Your task to perform on an android device: turn pop-ups off in chrome Image 0: 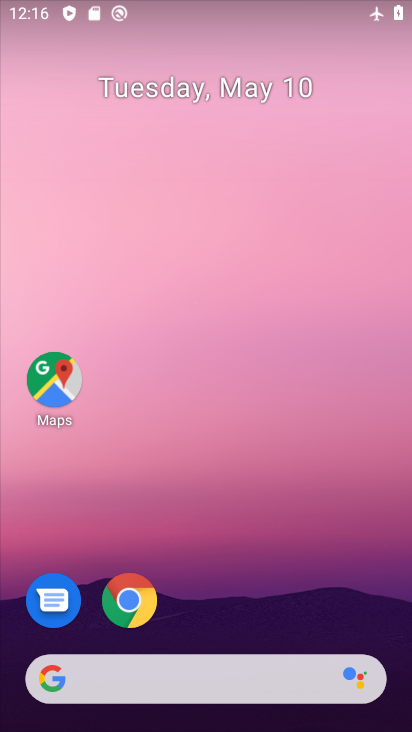
Step 0: drag from (276, 503) to (391, 427)
Your task to perform on an android device: turn pop-ups off in chrome Image 1: 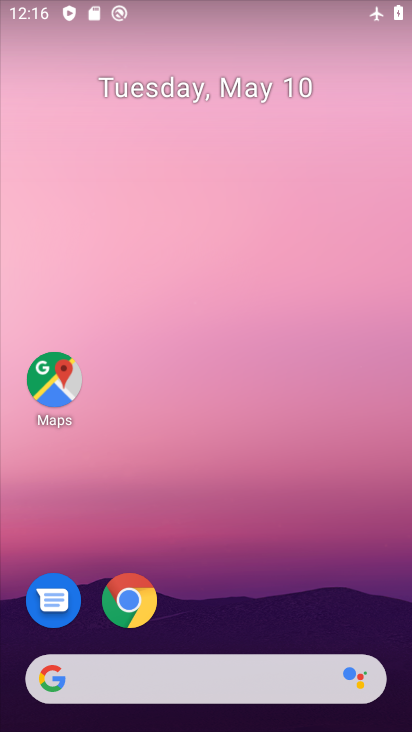
Step 1: drag from (285, 588) to (295, 5)
Your task to perform on an android device: turn pop-ups off in chrome Image 2: 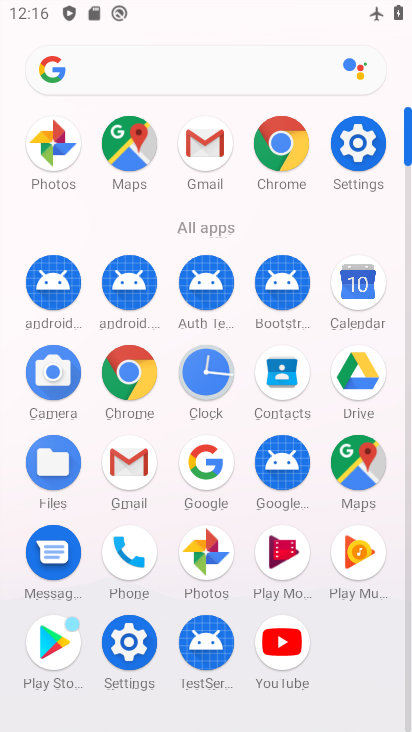
Step 2: click (284, 168)
Your task to perform on an android device: turn pop-ups off in chrome Image 3: 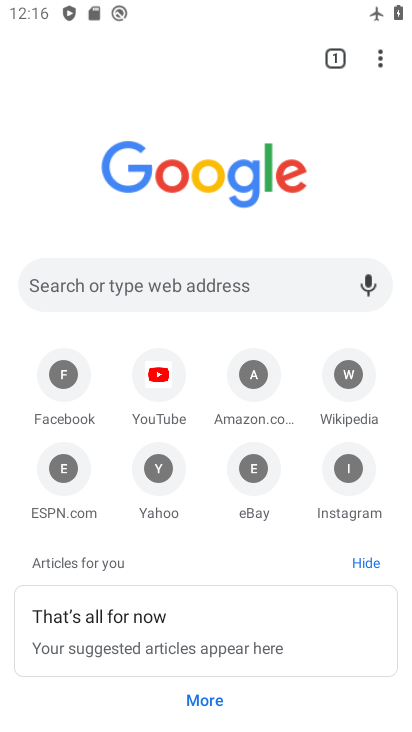
Step 3: click (358, 82)
Your task to perform on an android device: turn pop-ups off in chrome Image 4: 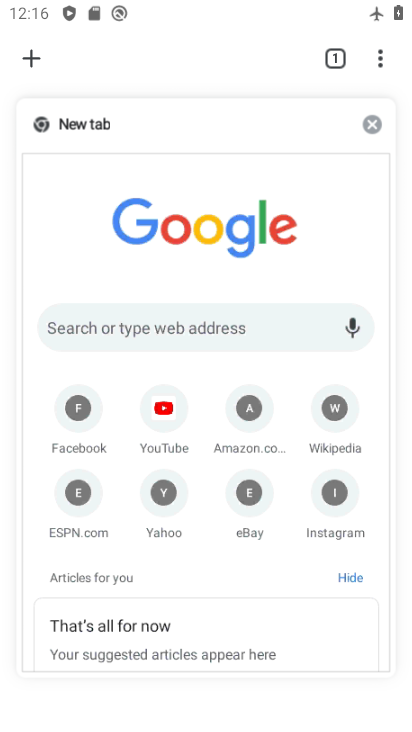
Step 4: click (380, 54)
Your task to perform on an android device: turn pop-ups off in chrome Image 5: 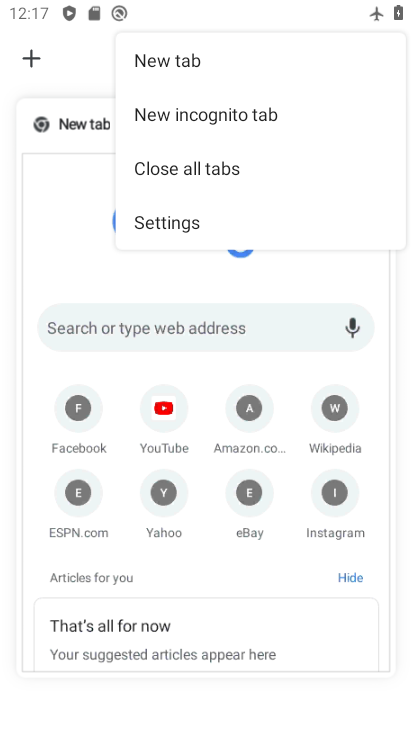
Step 5: click (249, 220)
Your task to perform on an android device: turn pop-ups off in chrome Image 6: 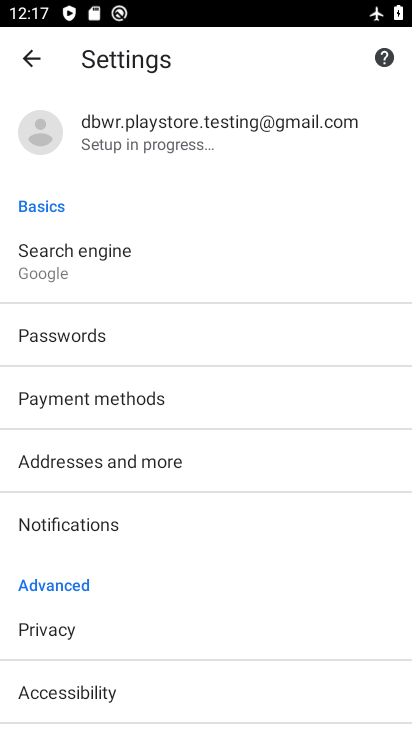
Step 6: drag from (232, 438) to (211, 236)
Your task to perform on an android device: turn pop-ups off in chrome Image 7: 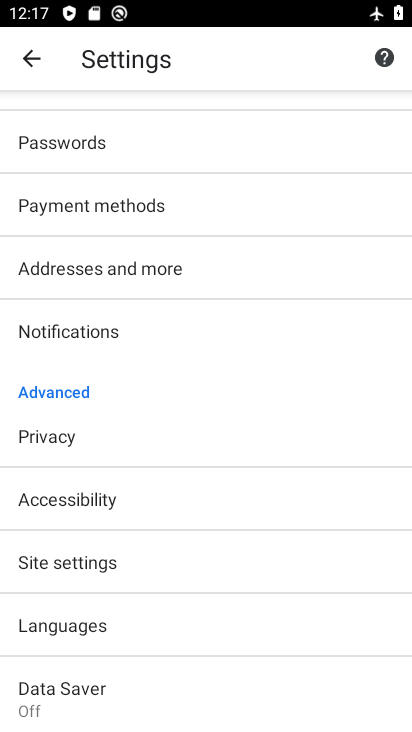
Step 7: drag from (171, 603) to (164, 438)
Your task to perform on an android device: turn pop-ups off in chrome Image 8: 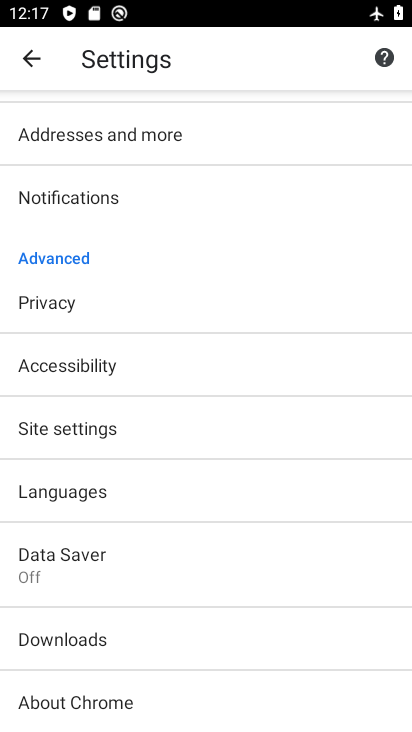
Step 8: drag from (133, 637) to (107, 287)
Your task to perform on an android device: turn pop-ups off in chrome Image 9: 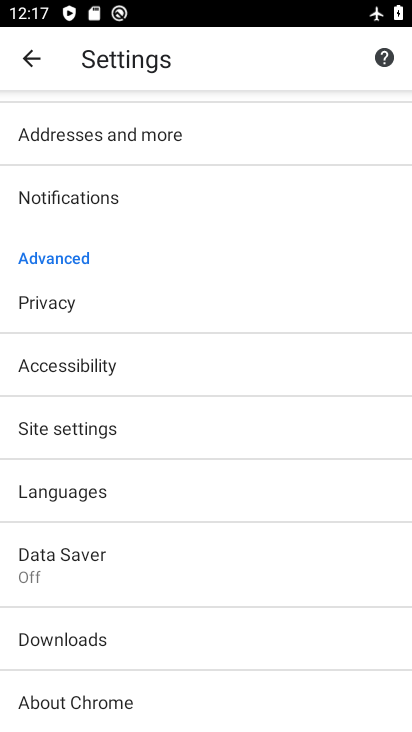
Step 9: click (107, 417)
Your task to perform on an android device: turn pop-ups off in chrome Image 10: 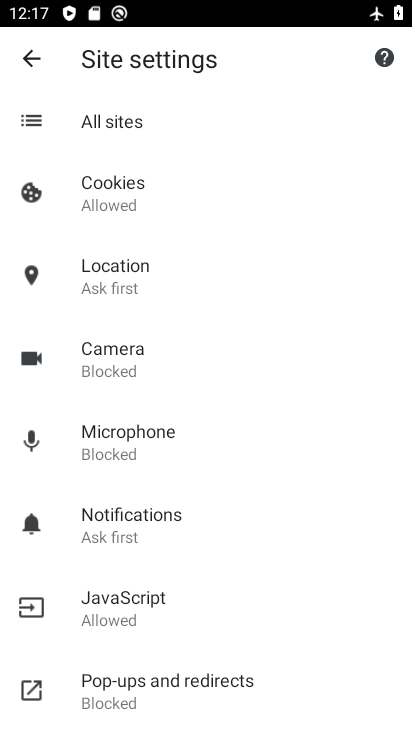
Step 10: drag from (156, 547) to (204, 235)
Your task to perform on an android device: turn pop-ups off in chrome Image 11: 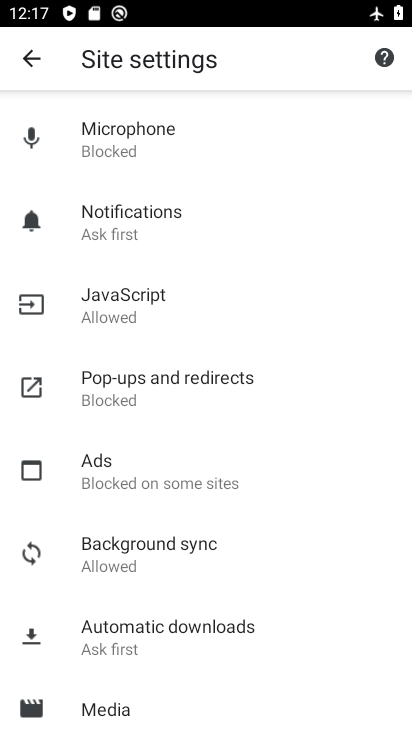
Step 11: drag from (181, 455) to (199, 303)
Your task to perform on an android device: turn pop-ups off in chrome Image 12: 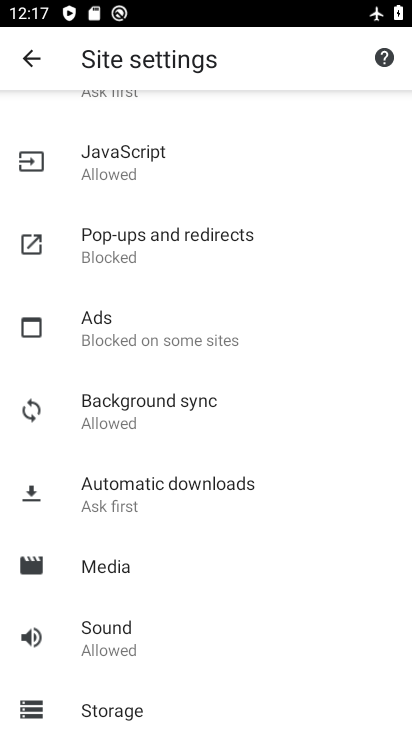
Step 12: click (142, 238)
Your task to perform on an android device: turn pop-ups off in chrome Image 13: 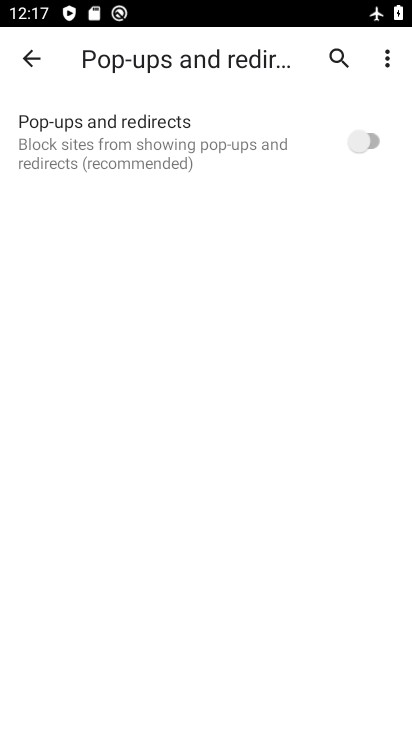
Step 13: task complete